Your task to perform on an android device: turn on wifi Image 0: 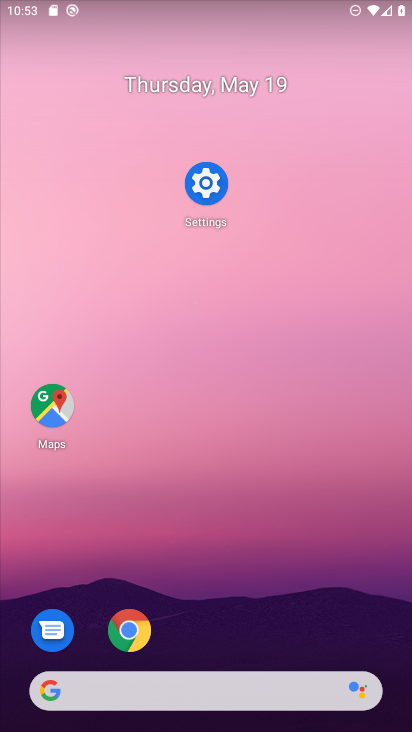
Step 0: drag from (303, 685) to (127, 205)
Your task to perform on an android device: turn on wifi Image 1: 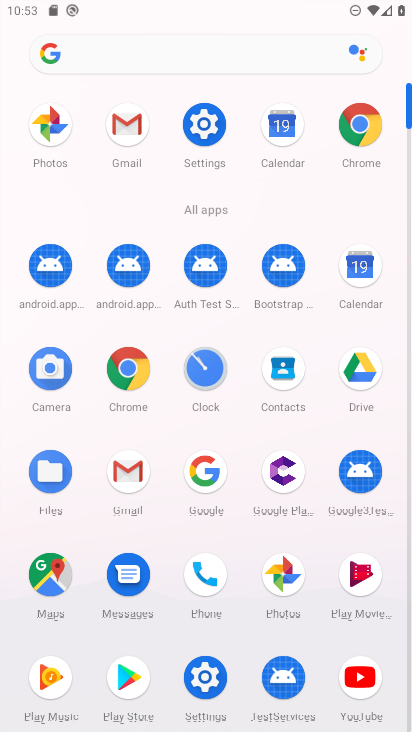
Step 1: click (207, 129)
Your task to perform on an android device: turn on wifi Image 2: 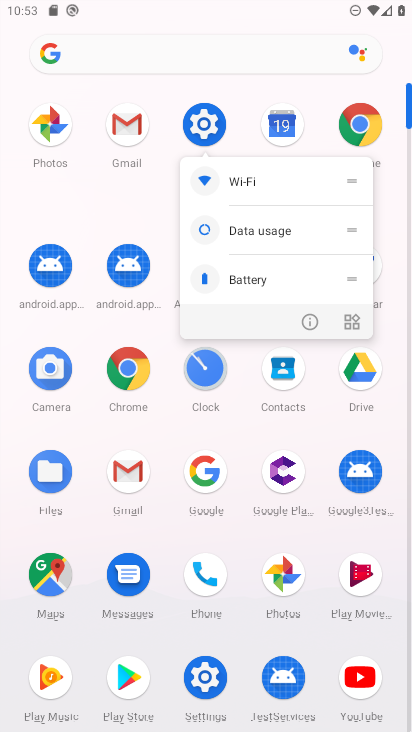
Step 2: click (196, 135)
Your task to perform on an android device: turn on wifi Image 3: 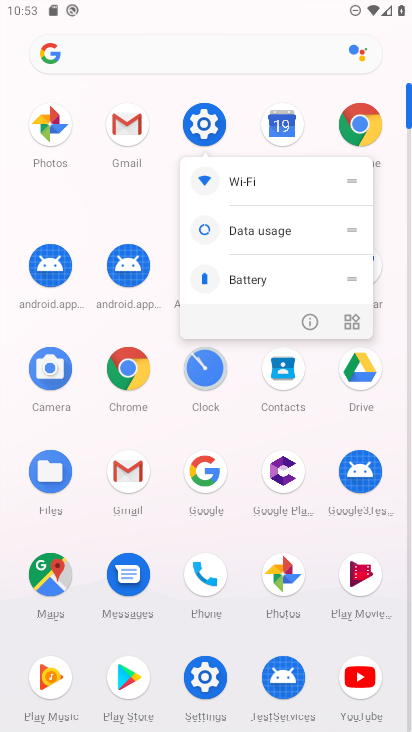
Step 3: drag from (197, 134) to (220, 106)
Your task to perform on an android device: turn on wifi Image 4: 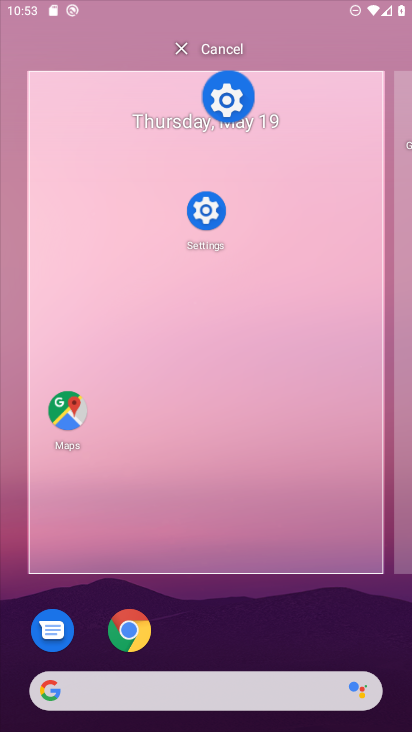
Step 4: click (213, 131)
Your task to perform on an android device: turn on wifi Image 5: 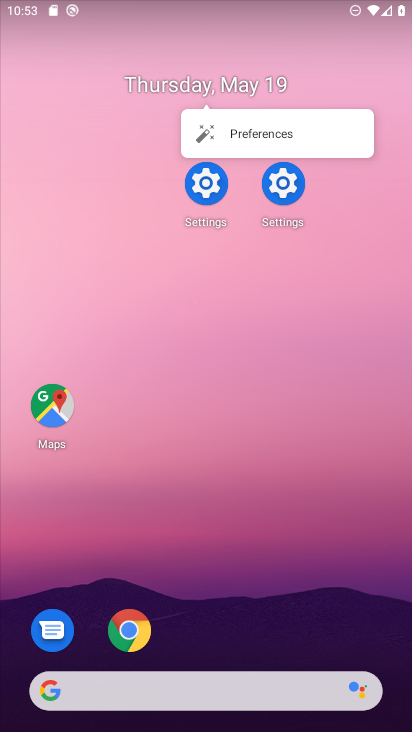
Step 5: drag from (260, 552) to (184, 272)
Your task to perform on an android device: turn on wifi Image 6: 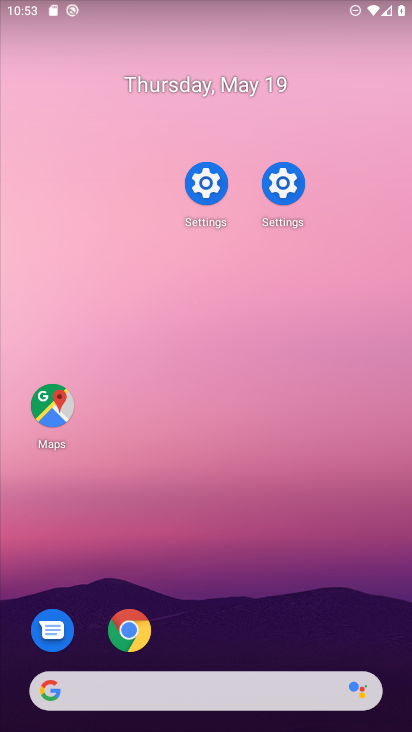
Step 6: drag from (254, 500) to (177, 171)
Your task to perform on an android device: turn on wifi Image 7: 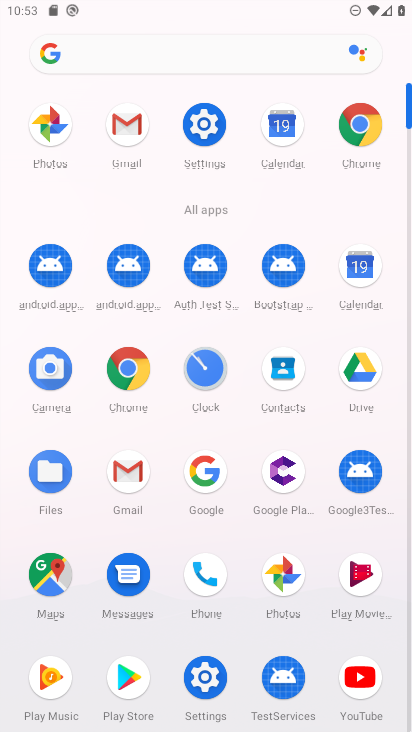
Step 7: click (216, 135)
Your task to perform on an android device: turn on wifi Image 8: 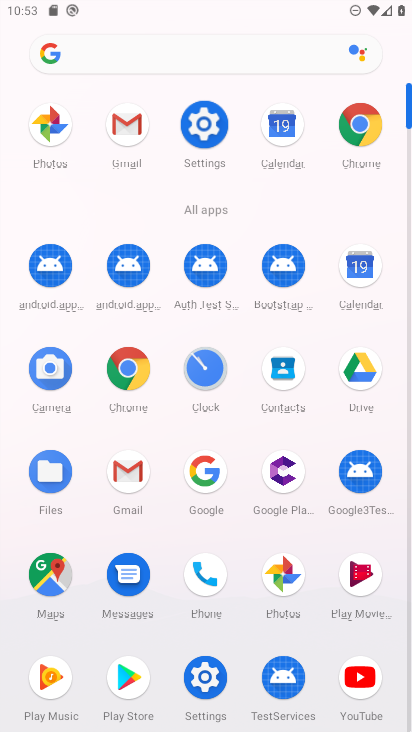
Step 8: click (215, 134)
Your task to perform on an android device: turn on wifi Image 9: 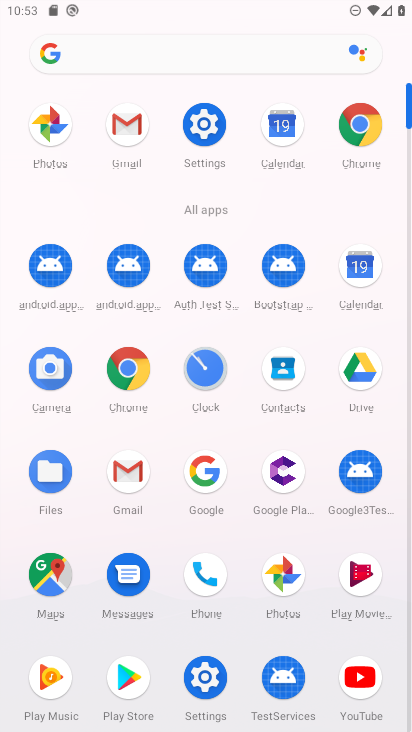
Step 9: click (208, 135)
Your task to perform on an android device: turn on wifi Image 10: 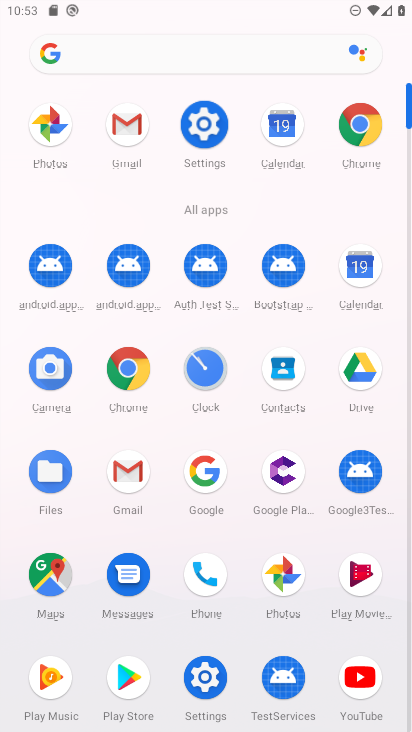
Step 10: click (208, 135)
Your task to perform on an android device: turn on wifi Image 11: 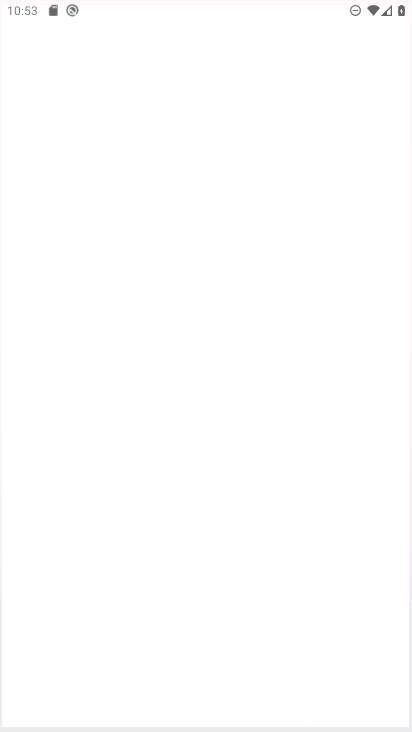
Step 11: click (208, 135)
Your task to perform on an android device: turn on wifi Image 12: 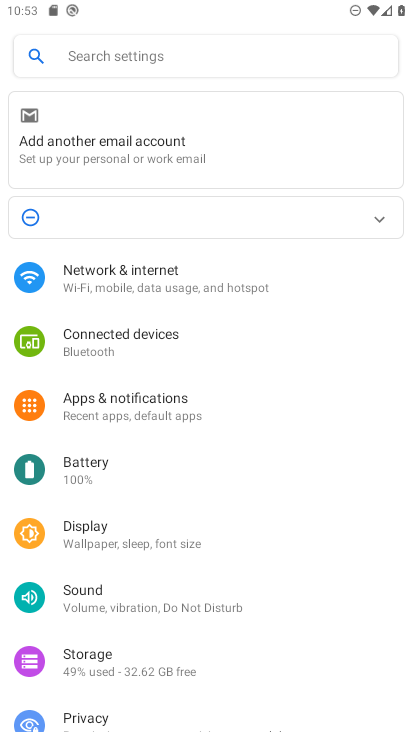
Step 12: click (120, 276)
Your task to perform on an android device: turn on wifi Image 13: 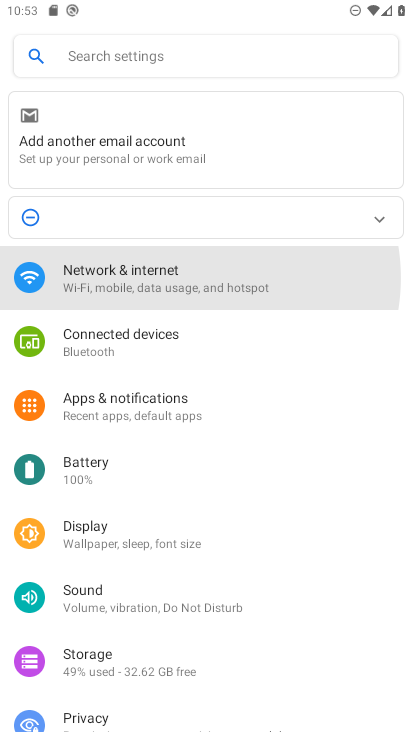
Step 13: click (120, 276)
Your task to perform on an android device: turn on wifi Image 14: 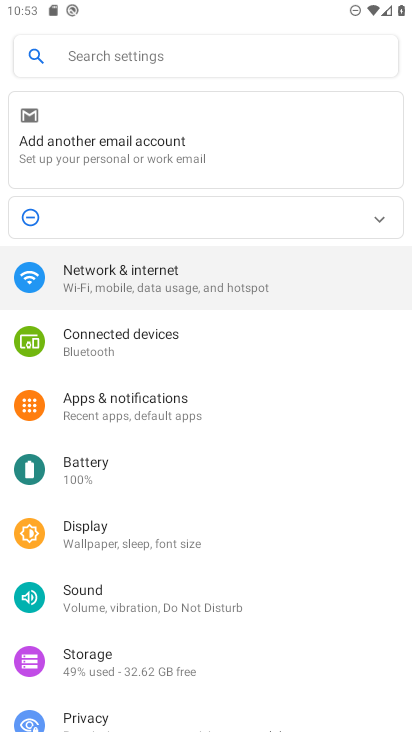
Step 14: click (120, 276)
Your task to perform on an android device: turn on wifi Image 15: 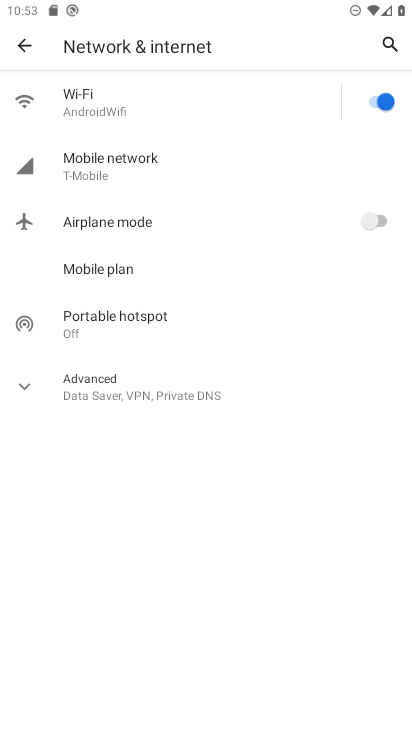
Step 15: click (120, 276)
Your task to perform on an android device: turn on wifi Image 16: 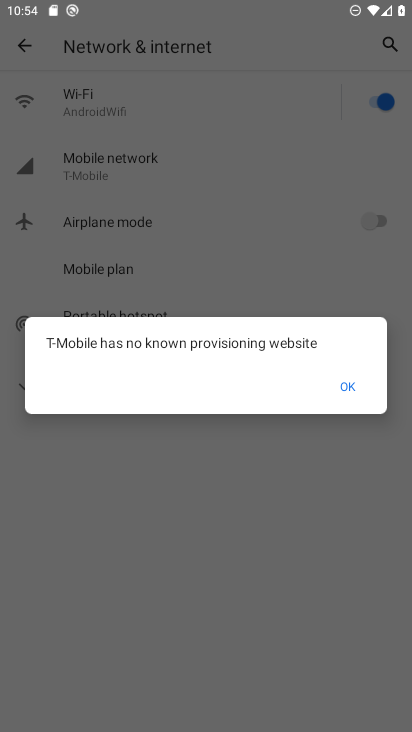
Step 16: click (356, 387)
Your task to perform on an android device: turn on wifi Image 17: 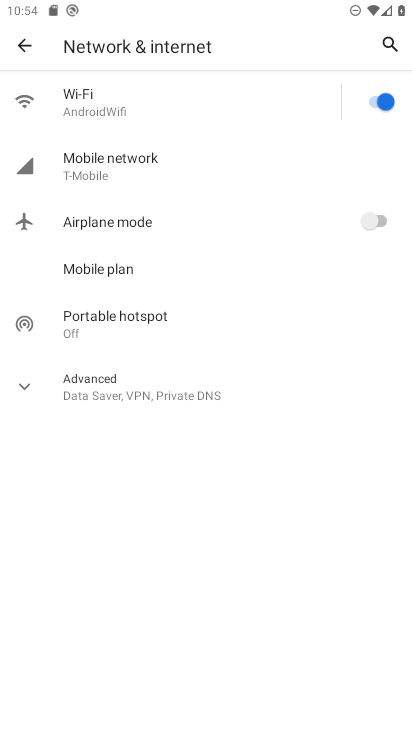
Step 17: task complete